Your task to perform on an android device: Go to Yahoo.com Image 0: 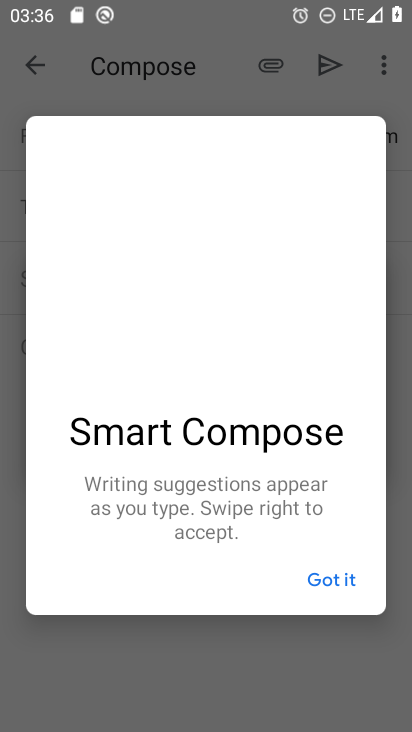
Step 0: press home button
Your task to perform on an android device: Go to Yahoo.com Image 1: 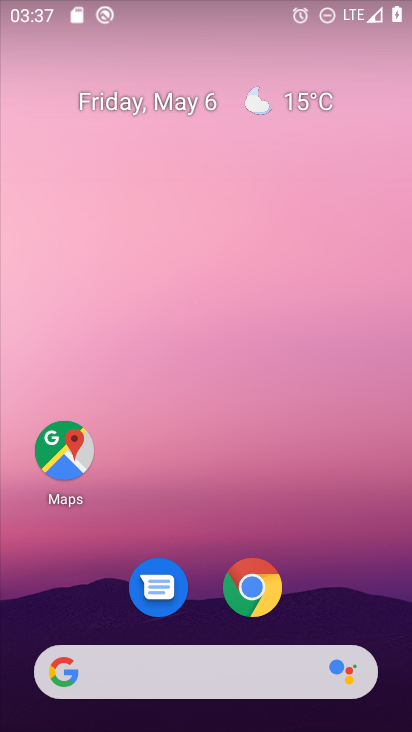
Step 1: drag from (343, 587) to (245, 37)
Your task to perform on an android device: Go to Yahoo.com Image 2: 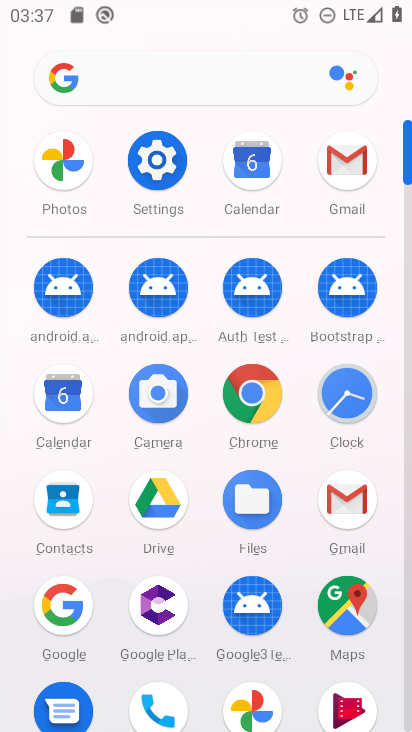
Step 2: click (251, 397)
Your task to perform on an android device: Go to Yahoo.com Image 3: 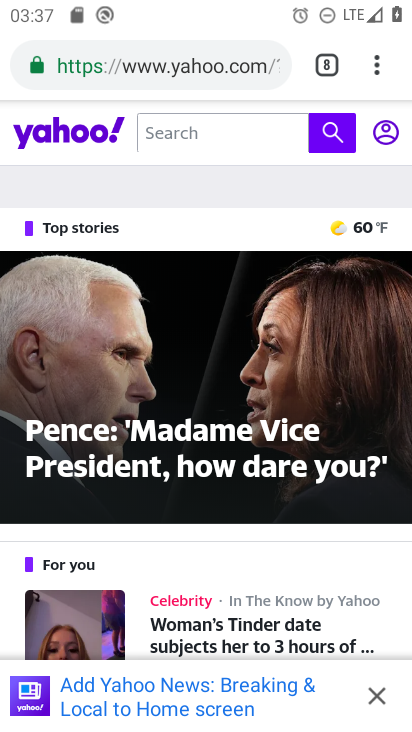
Step 3: task complete